Your task to perform on an android device: Open Google Chrome and click the shortcut for Amazon.com Image 0: 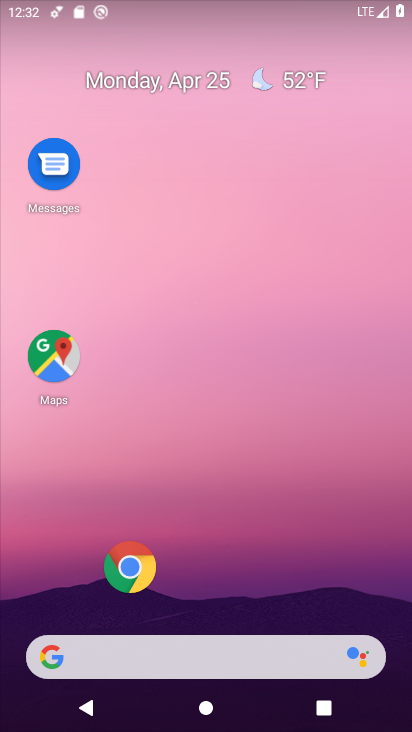
Step 0: drag from (310, 346) to (328, 0)
Your task to perform on an android device: Open Google Chrome and click the shortcut for Amazon.com Image 1: 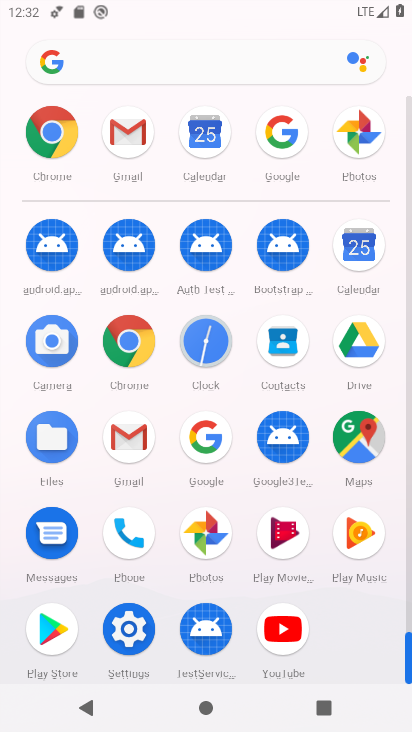
Step 1: click (61, 153)
Your task to perform on an android device: Open Google Chrome and click the shortcut for Amazon.com Image 2: 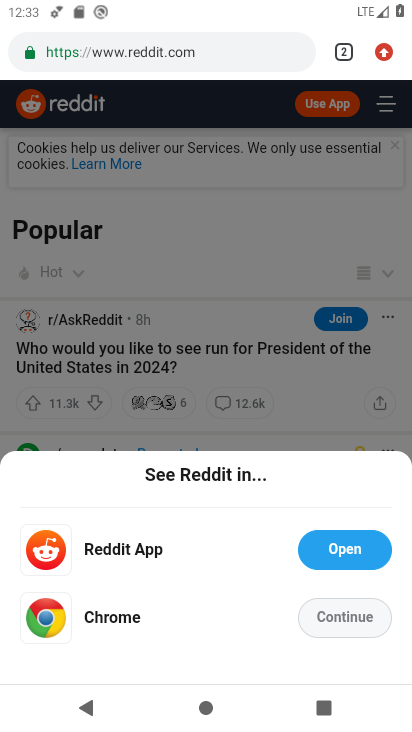
Step 2: click (364, 246)
Your task to perform on an android device: Open Google Chrome and click the shortcut for Amazon.com Image 3: 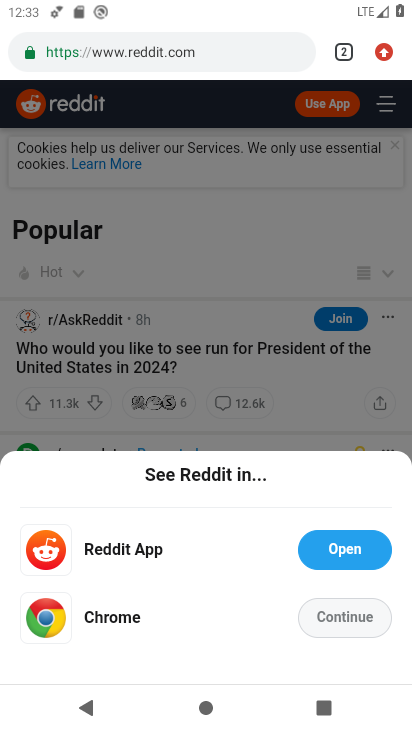
Step 3: click (278, 56)
Your task to perform on an android device: Open Google Chrome and click the shortcut for Amazon.com Image 4: 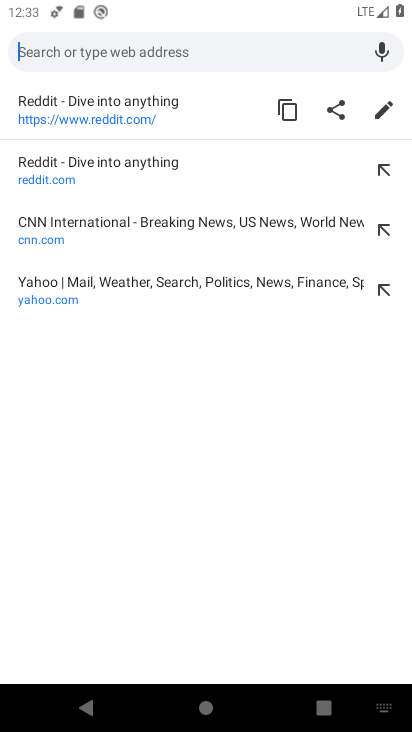
Step 4: press back button
Your task to perform on an android device: Open Google Chrome and click the shortcut for Amazon.com Image 5: 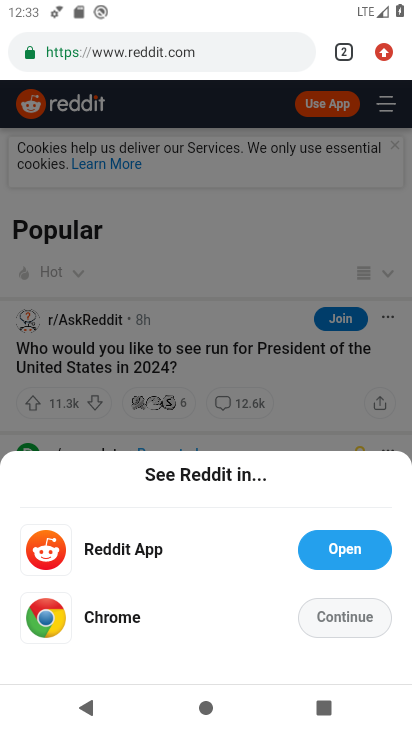
Step 5: drag from (340, 53) to (333, 264)
Your task to perform on an android device: Open Google Chrome and click the shortcut for Amazon.com Image 6: 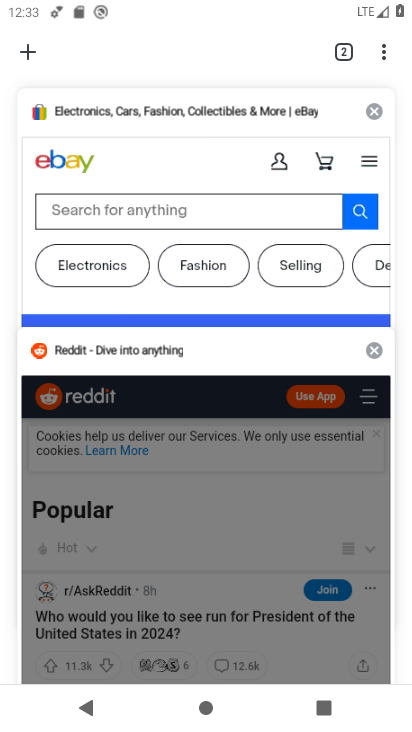
Step 6: click (25, 52)
Your task to perform on an android device: Open Google Chrome and click the shortcut for Amazon.com Image 7: 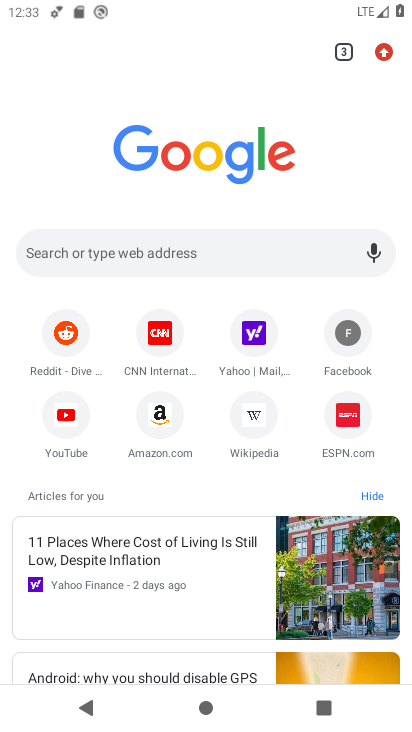
Step 7: click (170, 416)
Your task to perform on an android device: Open Google Chrome and click the shortcut for Amazon.com Image 8: 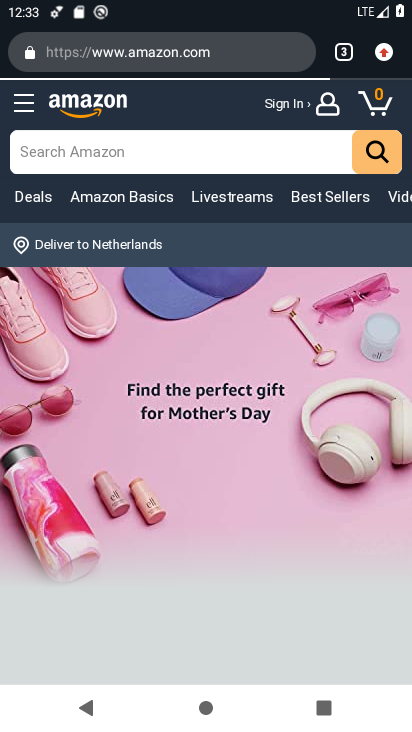
Step 8: task complete